Your task to perform on an android device: turn off notifications settings in the gmail app Image 0: 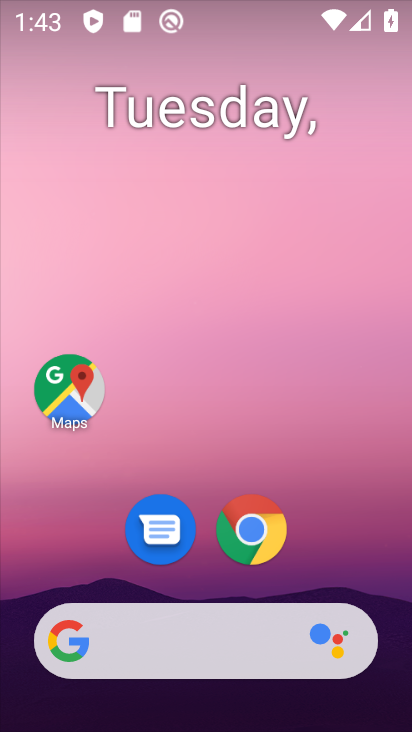
Step 0: drag from (382, 580) to (290, 11)
Your task to perform on an android device: turn off notifications settings in the gmail app Image 1: 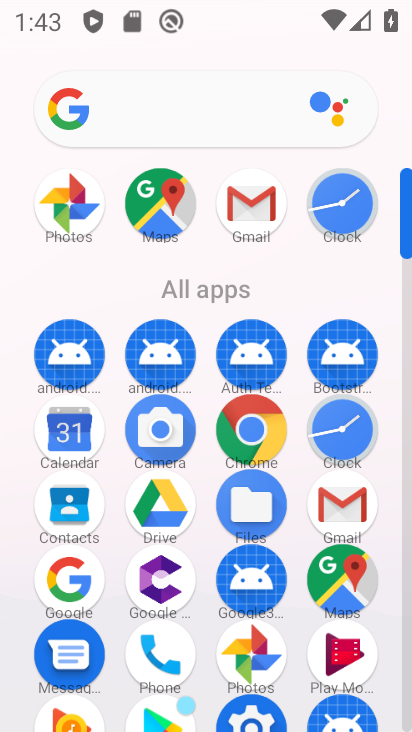
Step 1: click (273, 205)
Your task to perform on an android device: turn off notifications settings in the gmail app Image 2: 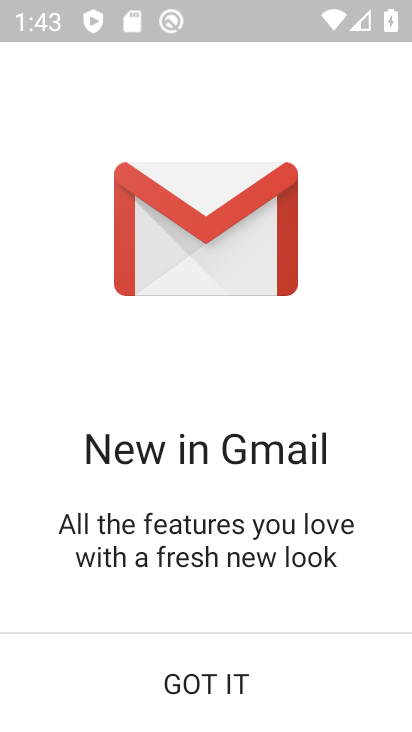
Step 2: click (232, 674)
Your task to perform on an android device: turn off notifications settings in the gmail app Image 3: 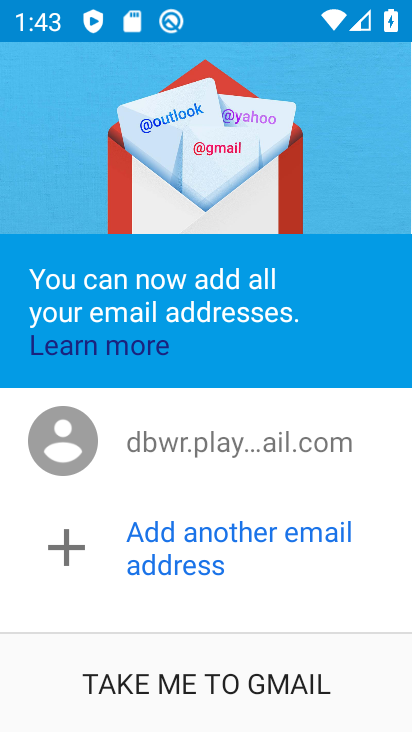
Step 3: click (232, 674)
Your task to perform on an android device: turn off notifications settings in the gmail app Image 4: 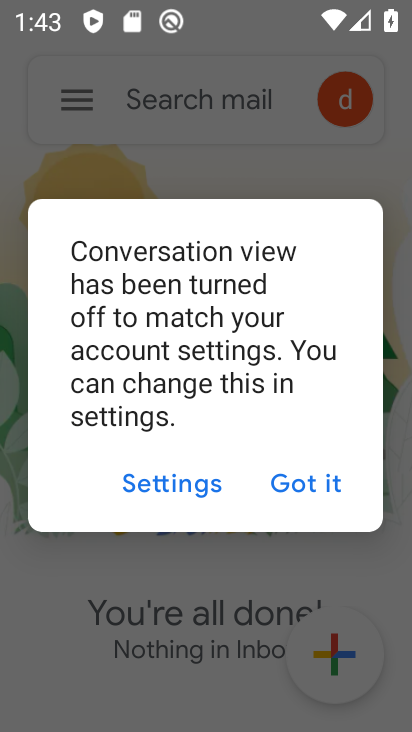
Step 4: click (327, 485)
Your task to perform on an android device: turn off notifications settings in the gmail app Image 5: 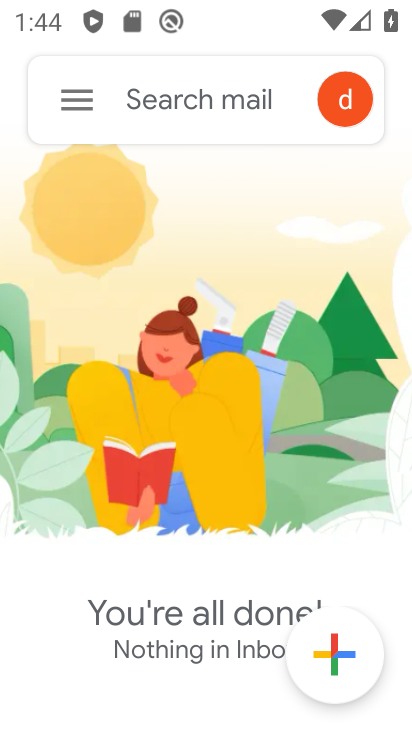
Step 5: click (77, 114)
Your task to perform on an android device: turn off notifications settings in the gmail app Image 6: 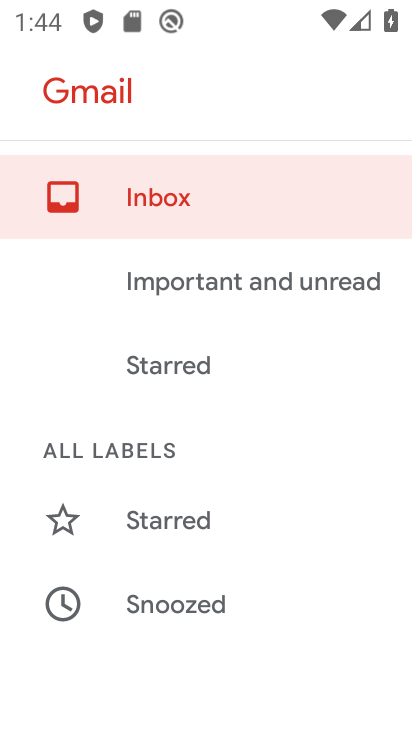
Step 6: drag from (230, 641) to (209, 89)
Your task to perform on an android device: turn off notifications settings in the gmail app Image 7: 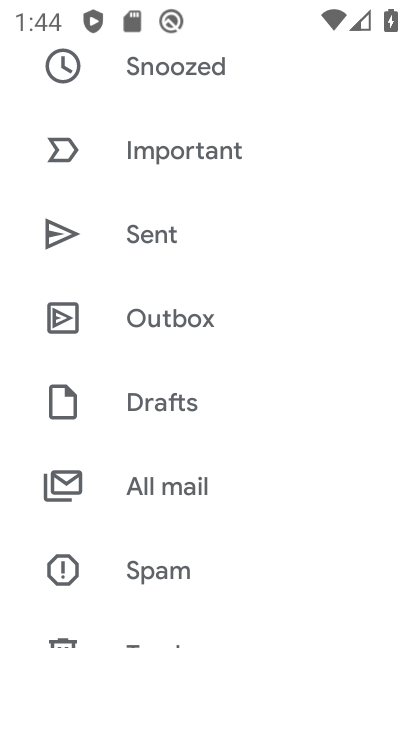
Step 7: drag from (229, 625) to (200, 67)
Your task to perform on an android device: turn off notifications settings in the gmail app Image 8: 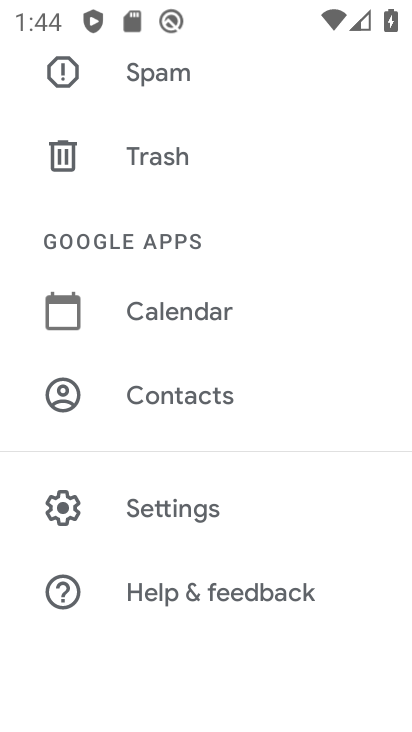
Step 8: click (215, 526)
Your task to perform on an android device: turn off notifications settings in the gmail app Image 9: 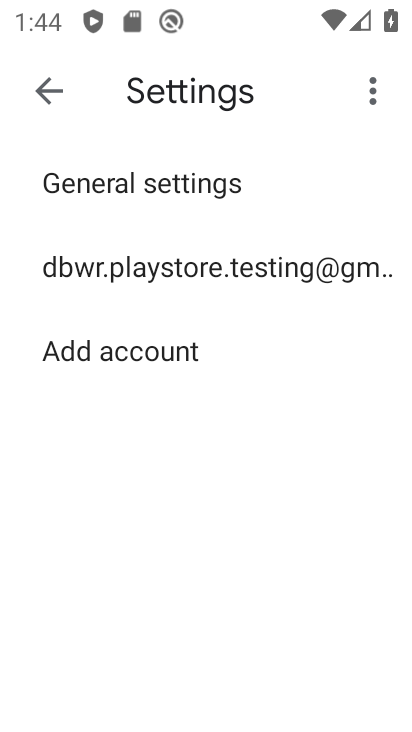
Step 9: click (233, 261)
Your task to perform on an android device: turn off notifications settings in the gmail app Image 10: 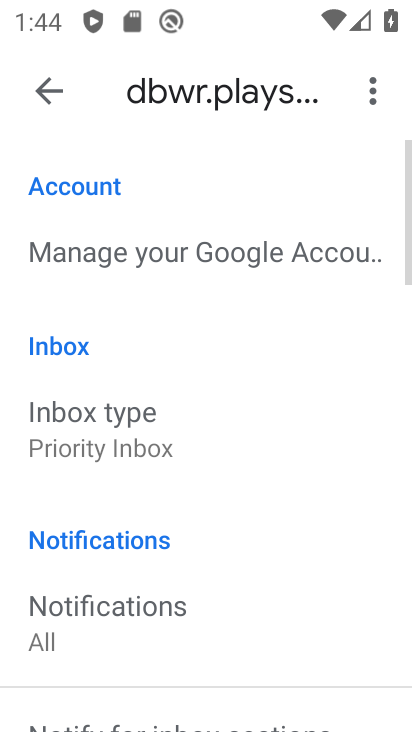
Step 10: drag from (254, 650) to (253, 206)
Your task to perform on an android device: turn off notifications settings in the gmail app Image 11: 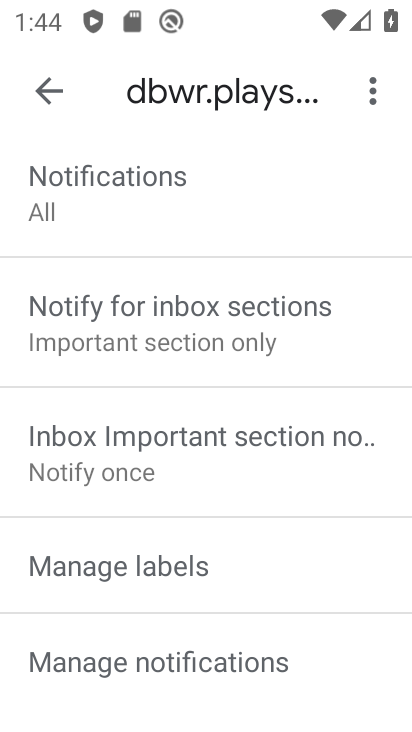
Step 11: click (288, 665)
Your task to perform on an android device: turn off notifications settings in the gmail app Image 12: 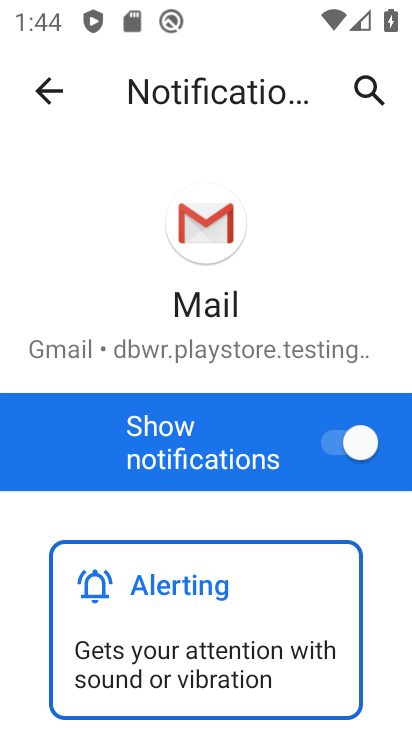
Step 12: task complete